Your task to perform on an android device: Open location settings Image 0: 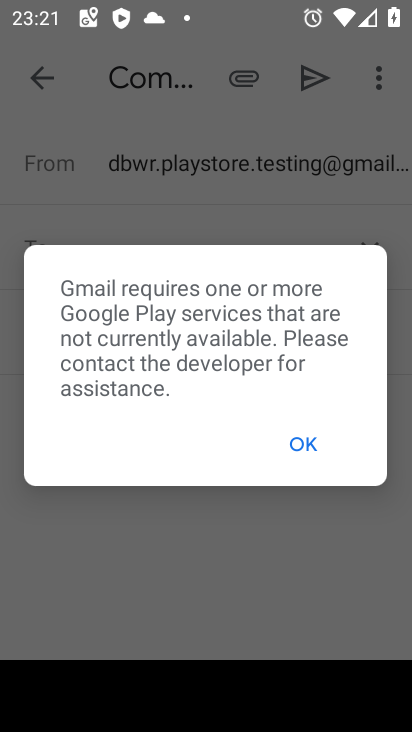
Step 0: press home button
Your task to perform on an android device: Open location settings Image 1: 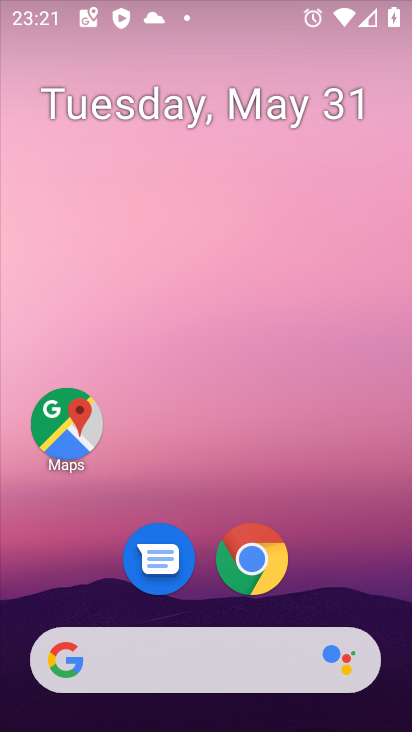
Step 1: drag from (348, 572) to (334, 59)
Your task to perform on an android device: Open location settings Image 2: 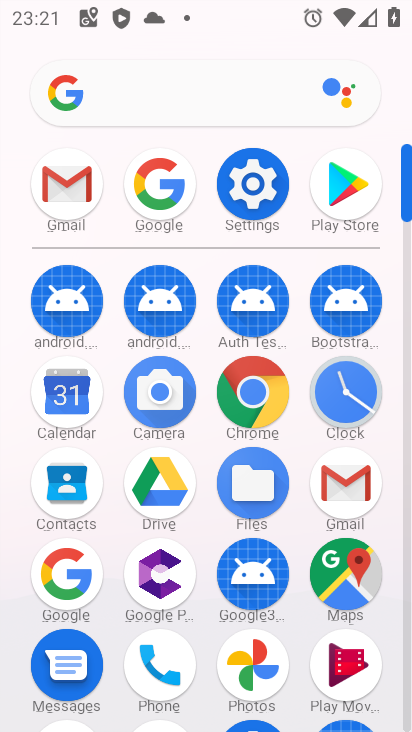
Step 2: click (253, 187)
Your task to perform on an android device: Open location settings Image 3: 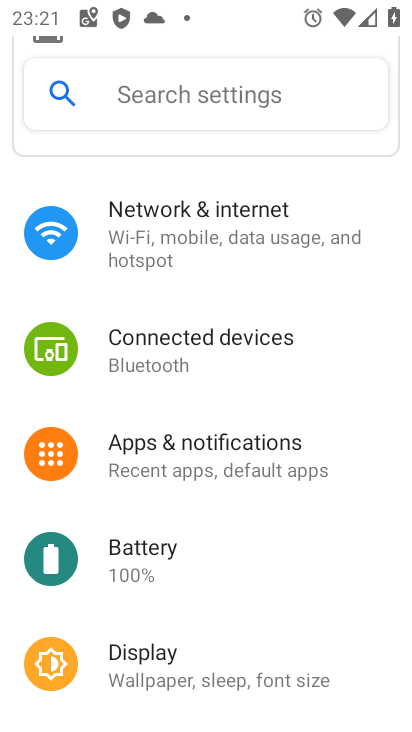
Step 3: drag from (228, 587) to (254, 175)
Your task to perform on an android device: Open location settings Image 4: 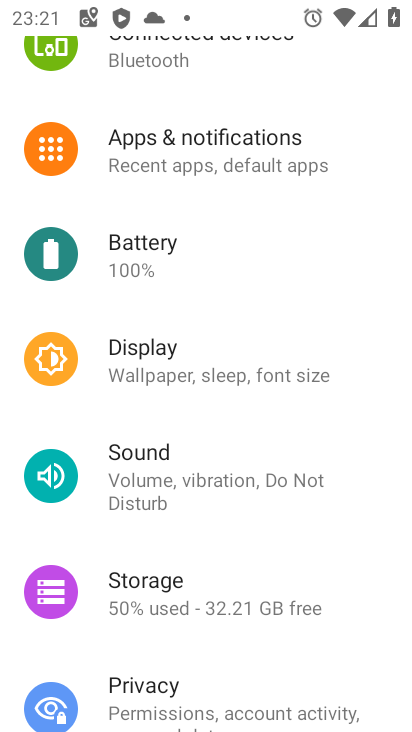
Step 4: drag from (225, 587) to (231, 244)
Your task to perform on an android device: Open location settings Image 5: 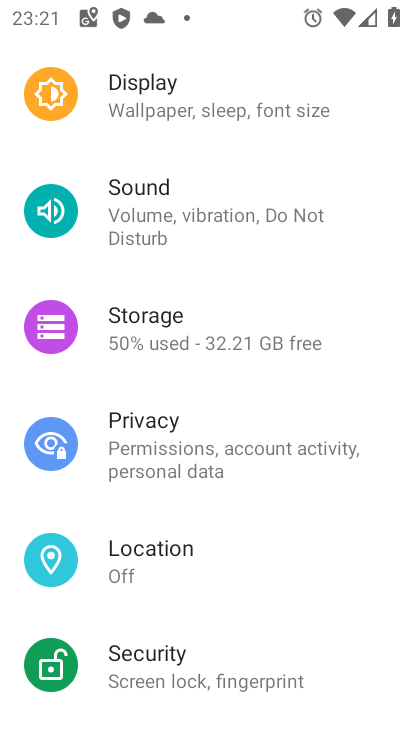
Step 5: click (202, 556)
Your task to perform on an android device: Open location settings Image 6: 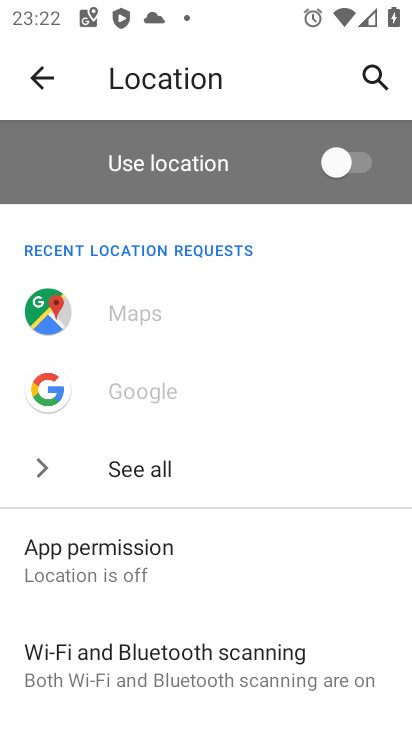
Step 6: click (339, 165)
Your task to perform on an android device: Open location settings Image 7: 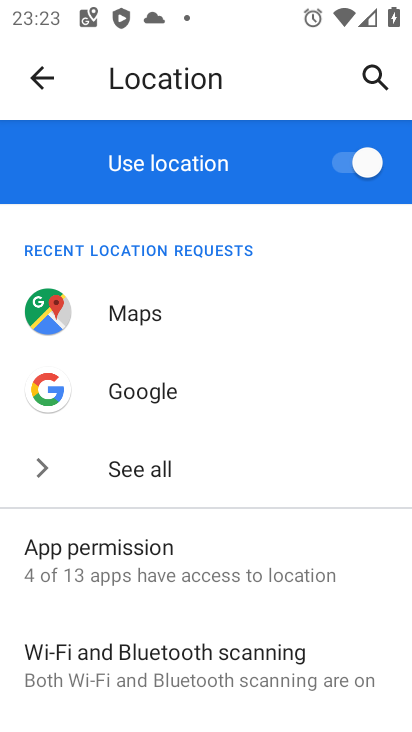
Step 7: task complete